Your task to perform on an android device: Is it going to rain this weekend? Image 0: 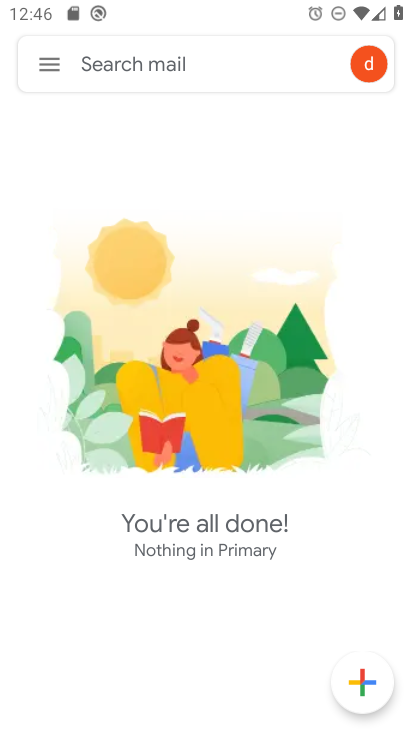
Step 0: press home button
Your task to perform on an android device: Is it going to rain this weekend? Image 1: 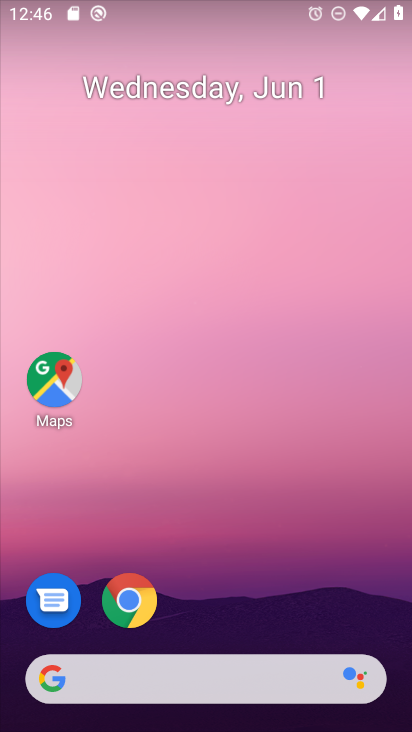
Step 1: drag from (9, 278) to (405, 269)
Your task to perform on an android device: Is it going to rain this weekend? Image 2: 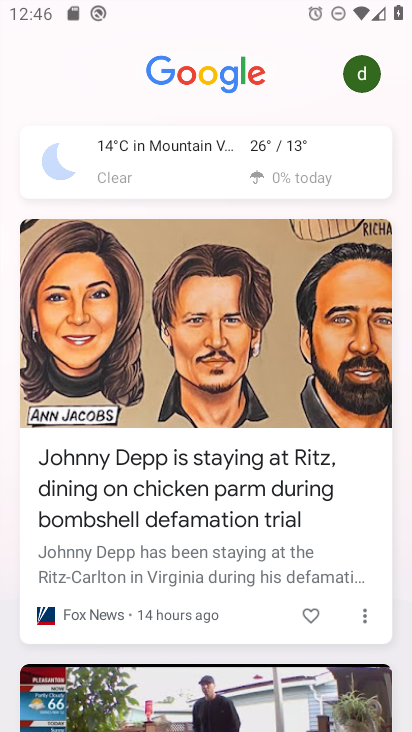
Step 2: click (280, 149)
Your task to perform on an android device: Is it going to rain this weekend? Image 3: 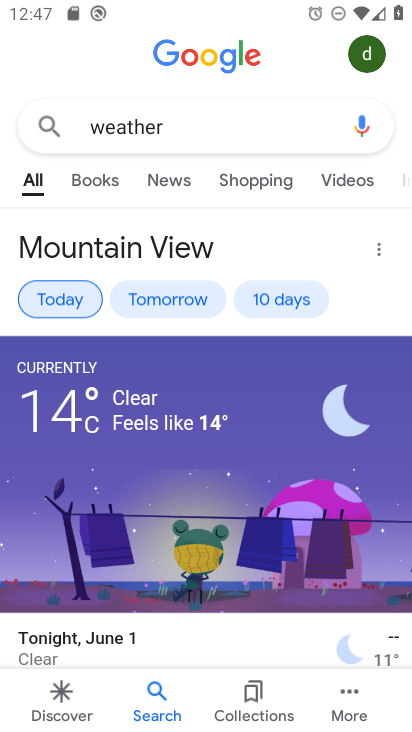
Step 3: click (260, 295)
Your task to perform on an android device: Is it going to rain this weekend? Image 4: 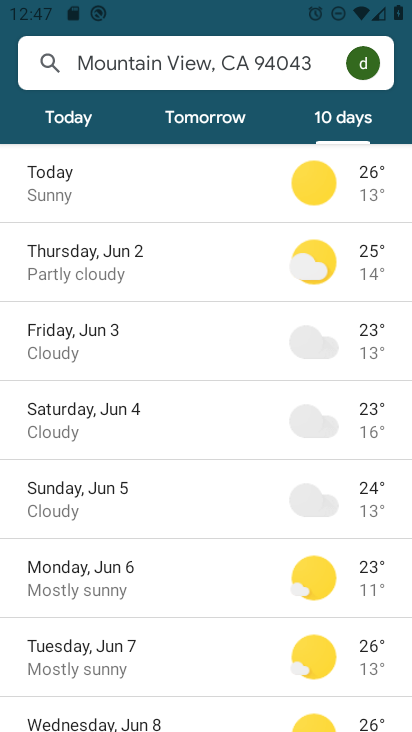
Step 4: task complete